Your task to perform on an android device: toggle location history Image 0: 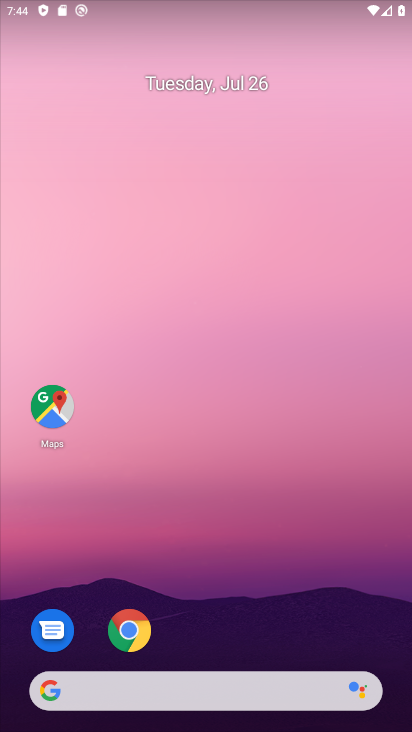
Step 0: drag from (182, 693) to (249, 41)
Your task to perform on an android device: toggle location history Image 1: 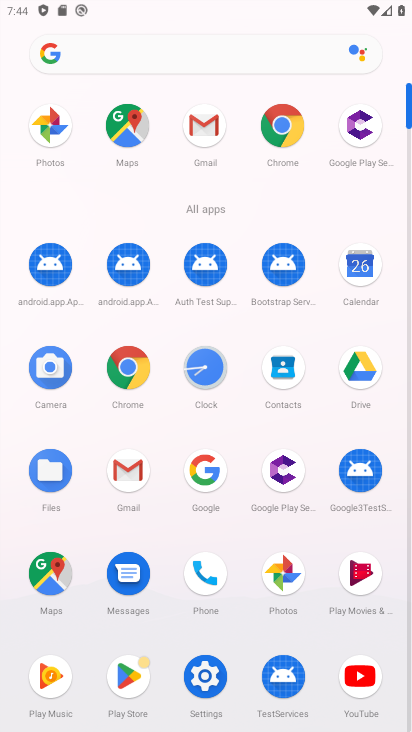
Step 1: click (205, 673)
Your task to perform on an android device: toggle location history Image 2: 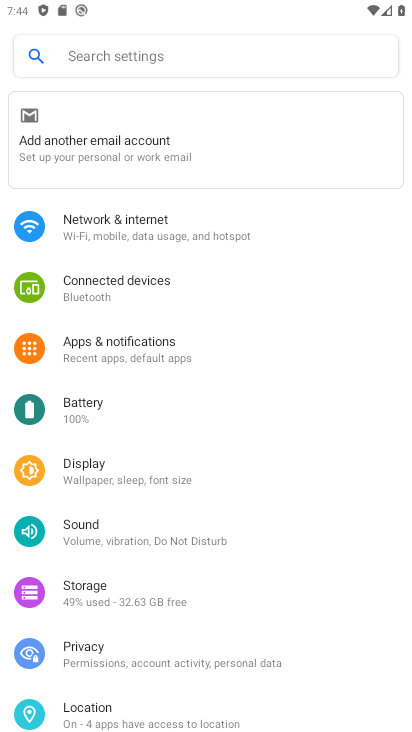
Step 2: drag from (172, 687) to (250, 528)
Your task to perform on an android device: toggle location history Image 3: 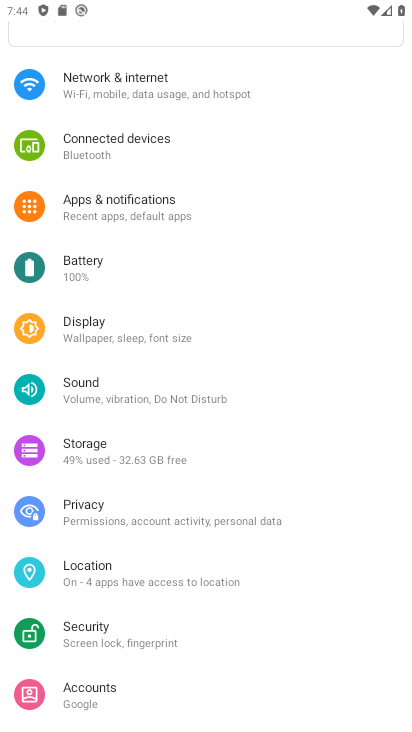
Step 3: click (114, 572)
Your task to perform on an android device: toggle location history Image 4: 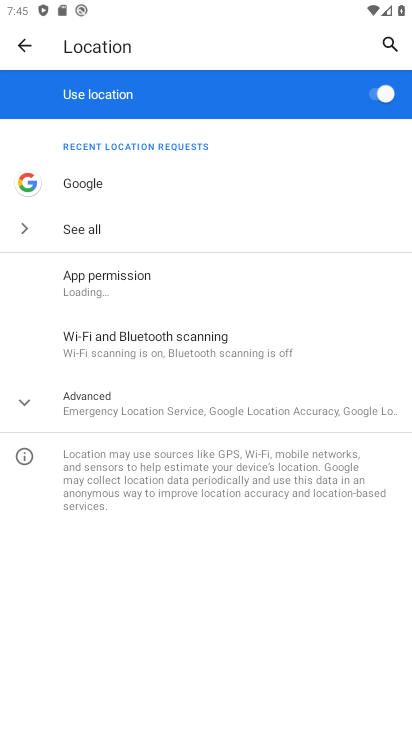
Step 4: click (187, 408)
Your task to perform on an android device: toggle location history Image 5: 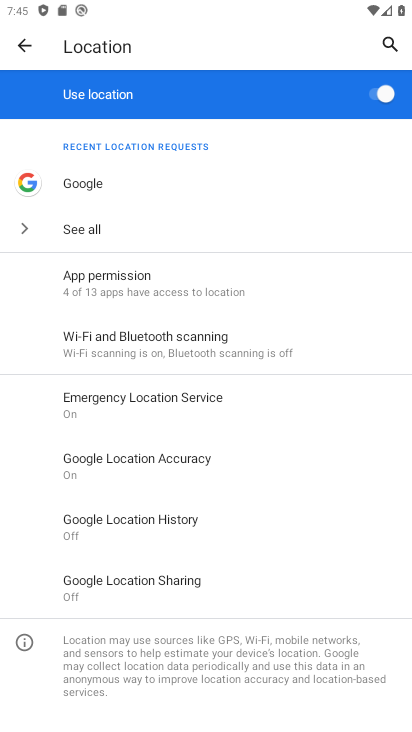
Step 5: click (131, 522)
Your task to perform on an android device: toggle location history Image 6: 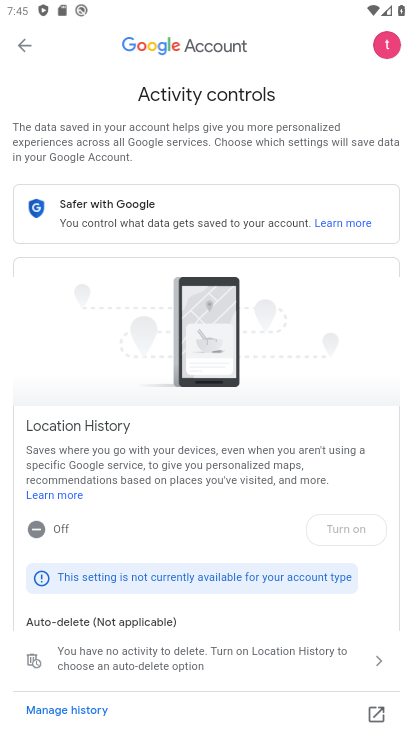
Step 6: drag from (231, 610) to (272, 499)
Your task to perform on an android device: toggle location history Image 7: 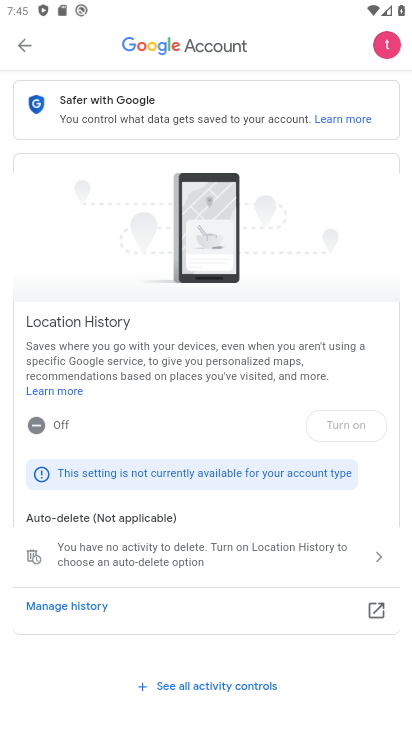
Step 7: click (186, 686)
Your task to perform on an android device: toggle location history Image 8: 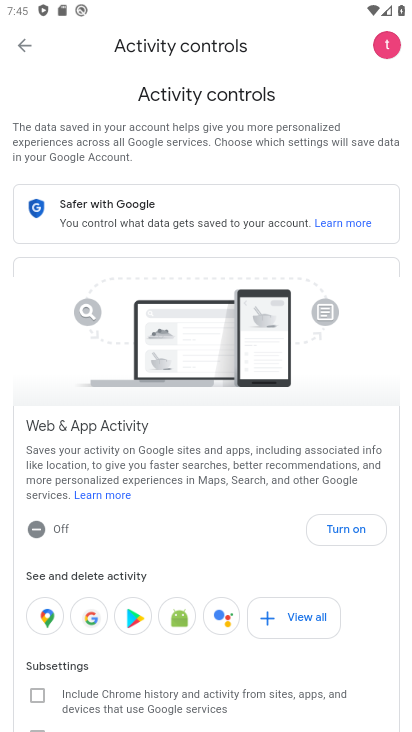
Step 8: click (332, 527)
Your task to perform on an android device: toggle location history Image 9: 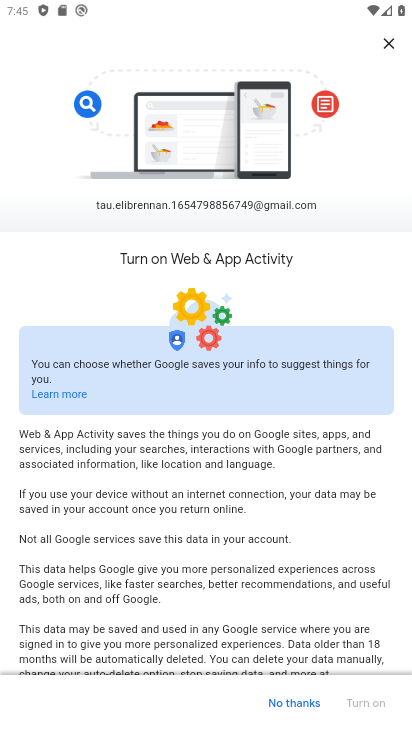
Step 9: drag from (214, 596) to (348, 339)
Your task to perform on an android device: toggle location history Image 10: 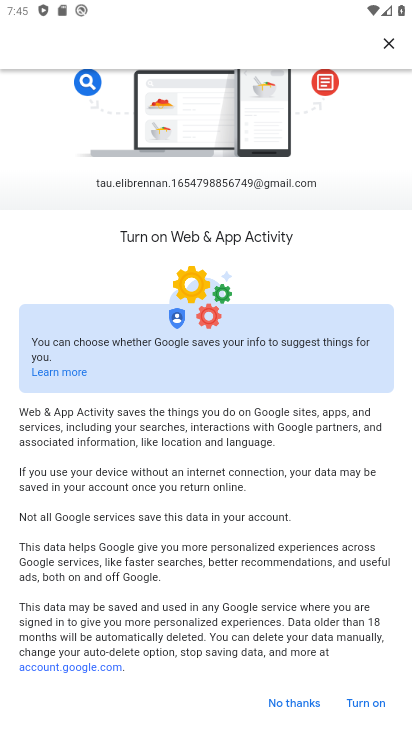
Step 10: click (365, 703)
Your task to perform on an android device: toggle location history Image 11: 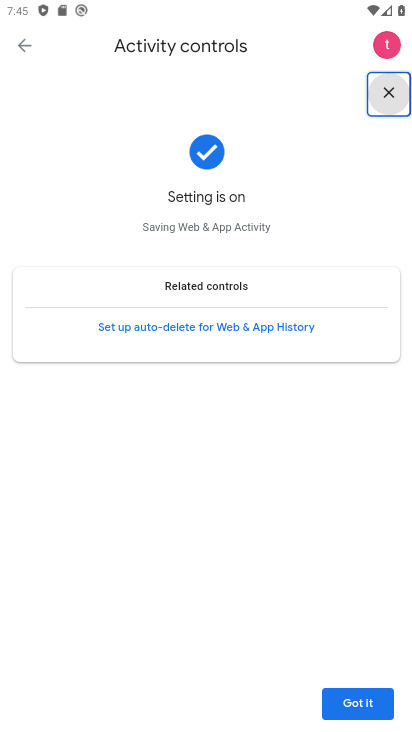
Step 11: click (339, 713)
Your task to perform on an android device: toggle location history Image 12: 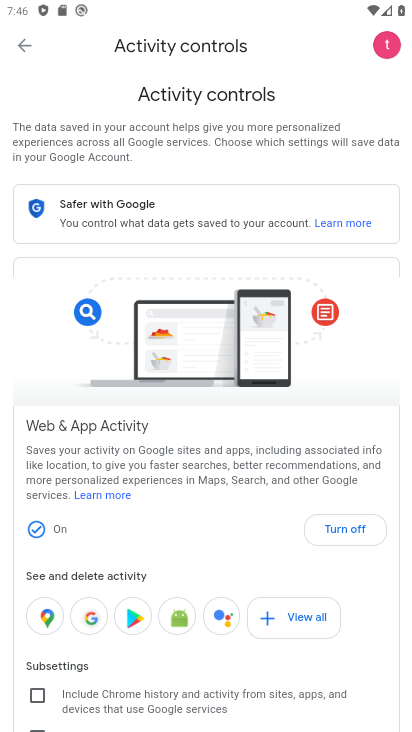
Step 12: task complete